Your task to perform on an android device: toggle translation in the chrome app Image 0: 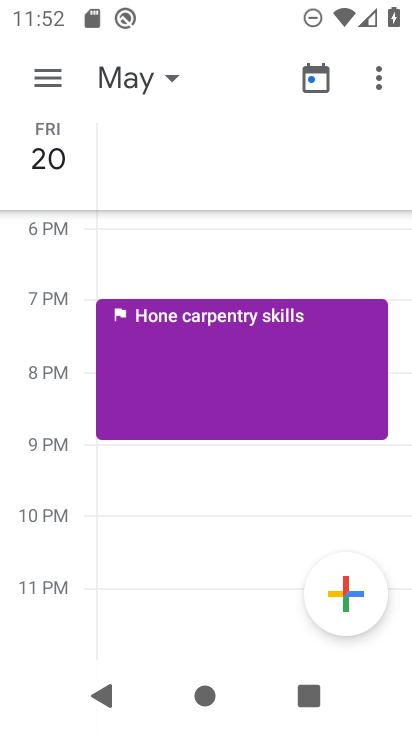
Step 0: press home button
Your task to perform on an android device: toggle translation in the chrome app Image 1: 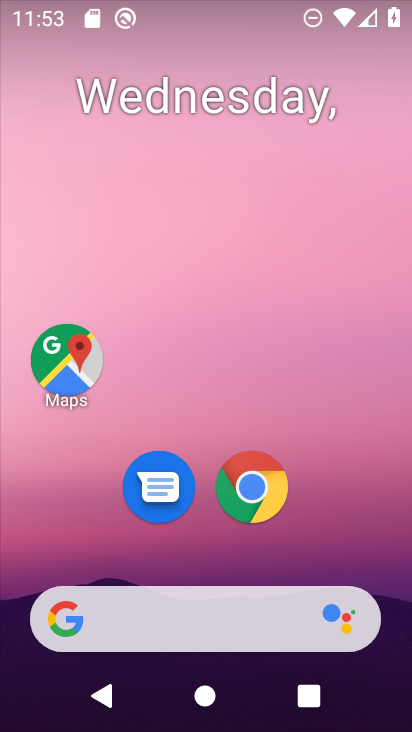
Step 1: click (252, 489)
Your task to perform on an android device: toggle translation in the chrome app Image 2: 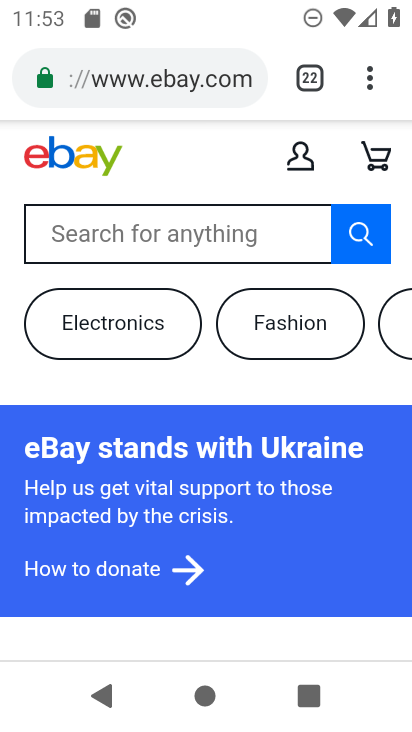
Step 2: click (373, 76)
Your task to perform on an android device: toggle translation in the chrome app Image 3: 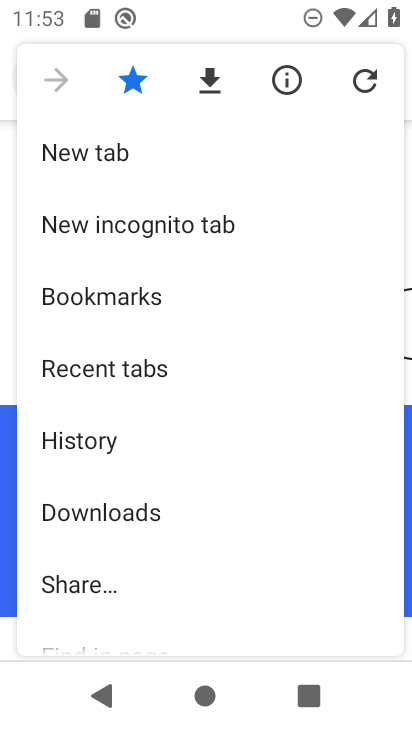
Step 3: drag from (242, 446) to (191, 148)
Your task to perform on an android device: toggle translation in the chrome app Image 4: 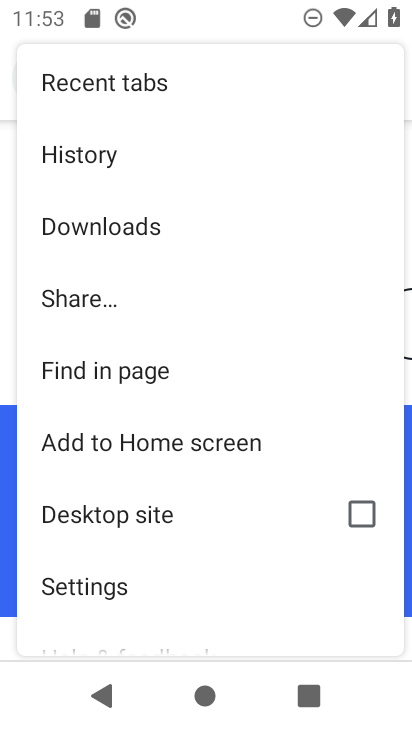
Step 4: click (93, 572)
Your task to perform on an android device: toggle translation in the chrome app Image 5: 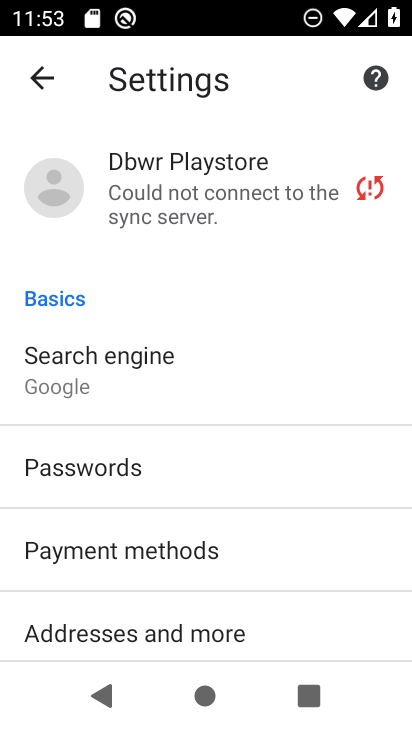
Step 5: drag from (239, 482) to (199, 143)
Your task to perform on an android device: toggle translation in the chrome app Image 6: 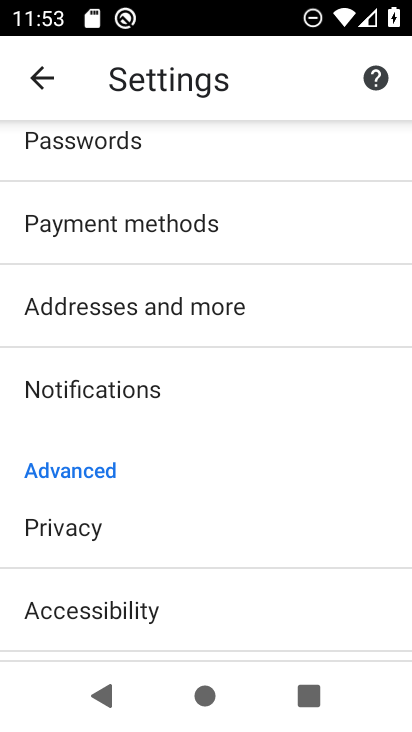
Step 6: drag from (235, 419) to (202, 146)
Your task to perform on an android device: toggle translation in the chrome app Image 7: 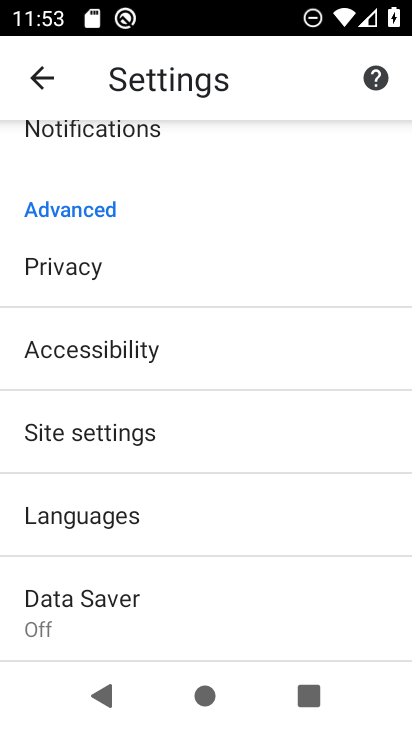
Step 7: click (112, 509)
Your task to perform on an android device: toggle translation in the chrome app Image 8: 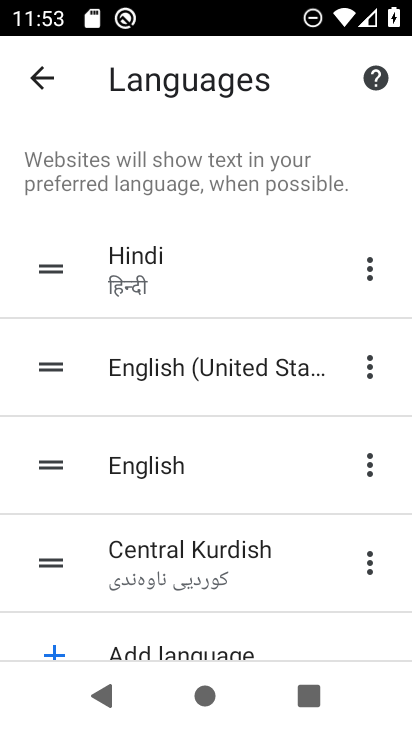
Step 8: drag from (256, 513) to (247, 168)
Your task to perform on an android device: toggle translation in the chrome app Image 9: 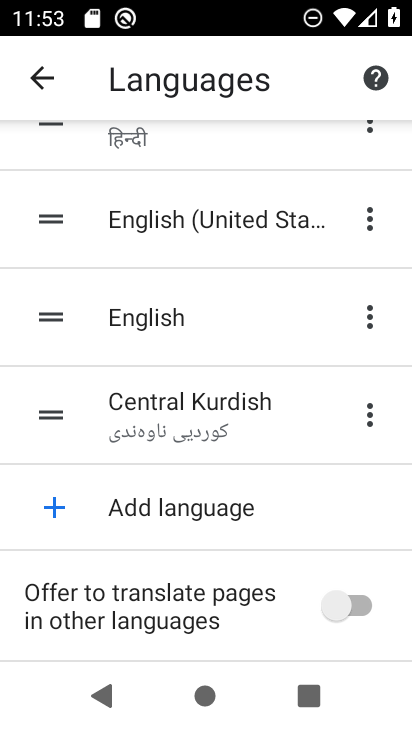
Step 9: click (338, 595)
Your task to perform on an android device: toggle translation in the chrome app Image 10: 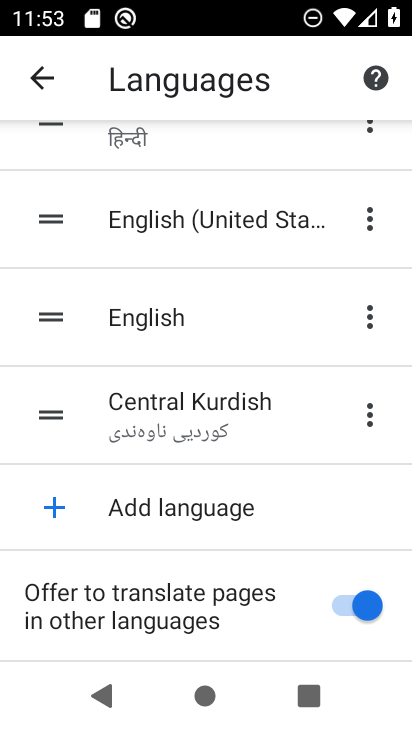
Step 10: task complete